Your task to perform on an android device: Is it going to rain this weekend? Image 0: 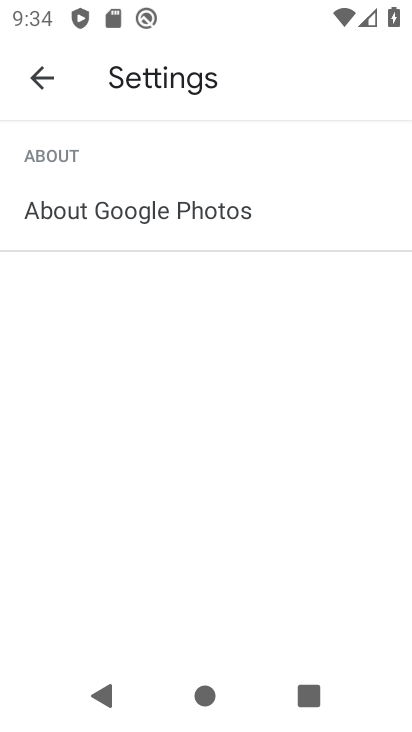
Step 0: press home button
Your task to perform on an android device: Is it going to rain this weekend? Image 1: 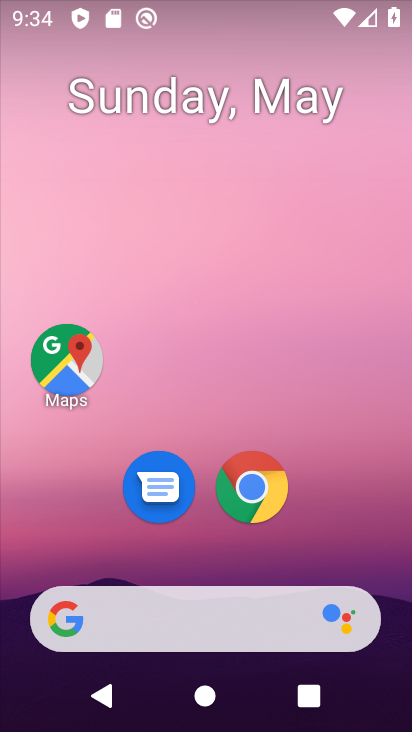
Step 1: click (209, 618)
Your task to perform on an android device: Is it going to rain this weekend? Image 2: 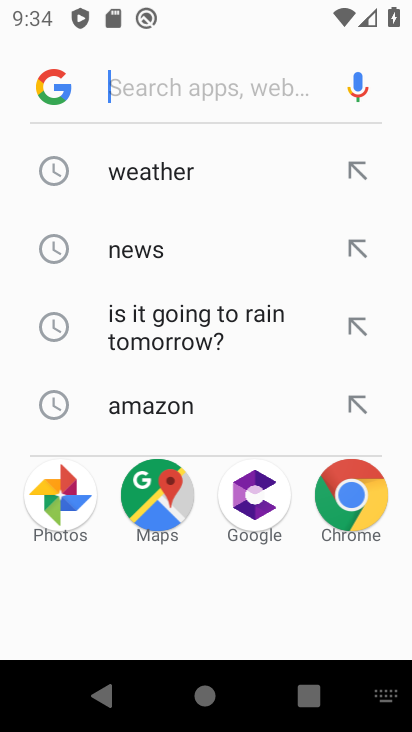
Step 2: click (161, 162)
Your task to perform on an android device: Is it going to rain this weekend? Image 3: 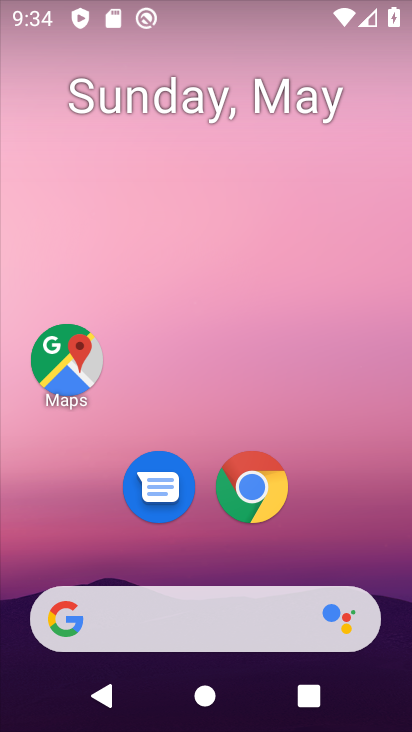
Step 3: click (279, 599)
Your task to perform on an android device: Is it going to rain this weekend? Image 4: 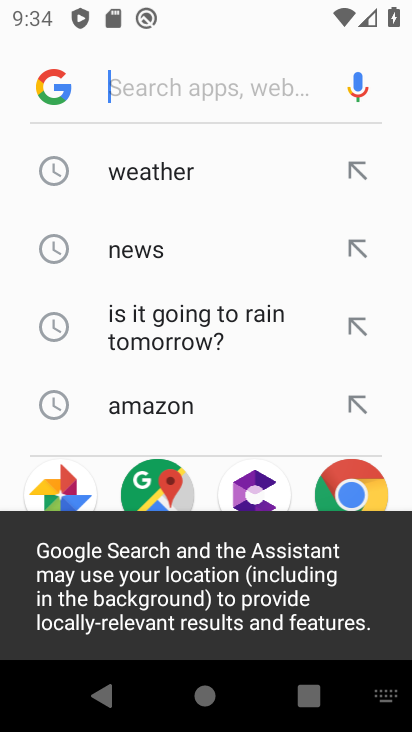
Step 4: click (164, 180)
Your task to perform on an android device: Is it going to rain this weekend? Image 5: 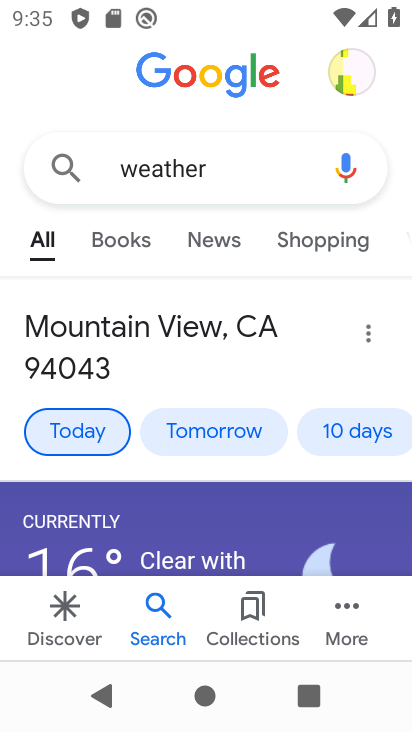
Step 5: click (362, 433)
Your task to perform on an android device: Is it going to rain this weekend? Image 6: 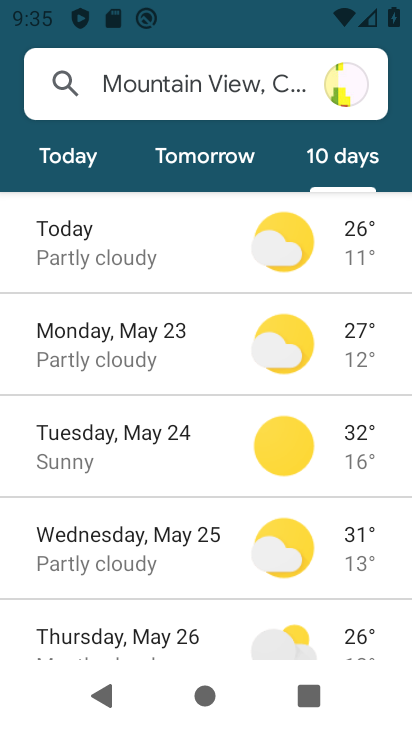
Step 6: task complete